Your task to perform on an android device: turn on priority inbox in the gmail app Image 0: 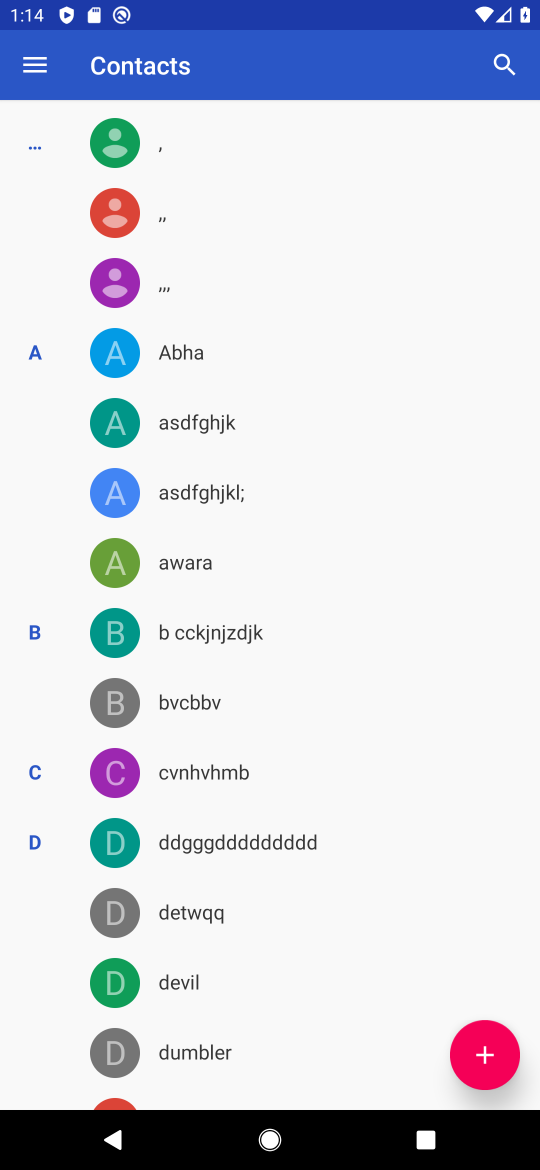
Step 0: press home button
Your task to perform on an android device: turn on priority inbox in the gmail app Image 1: 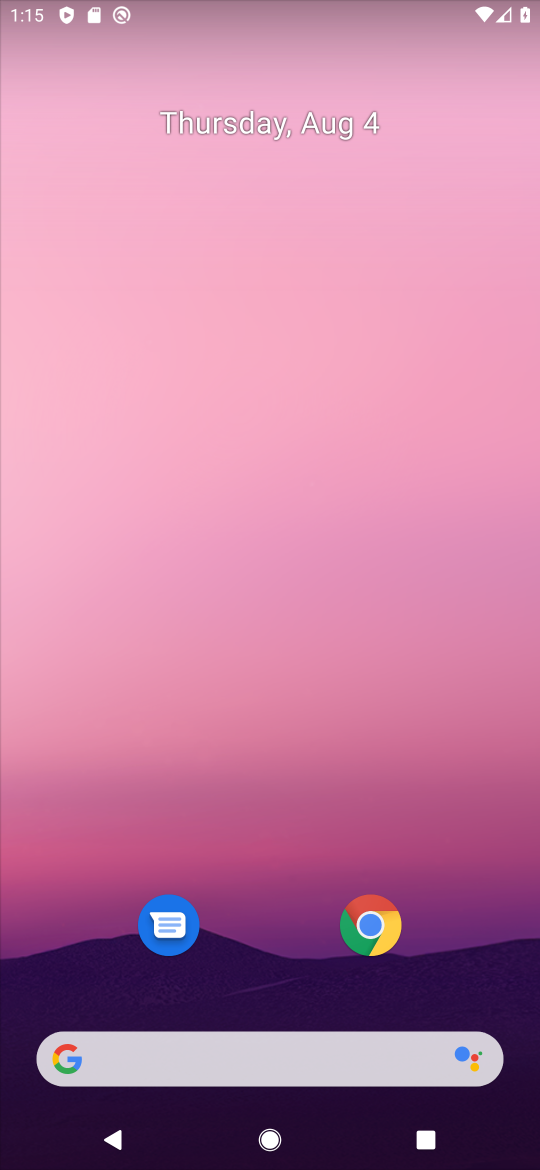
Step 1: drag from (268, 908) to (337, 18)
Your task to perform on an android device: turn on priority inbox in the gmail app Image 2: 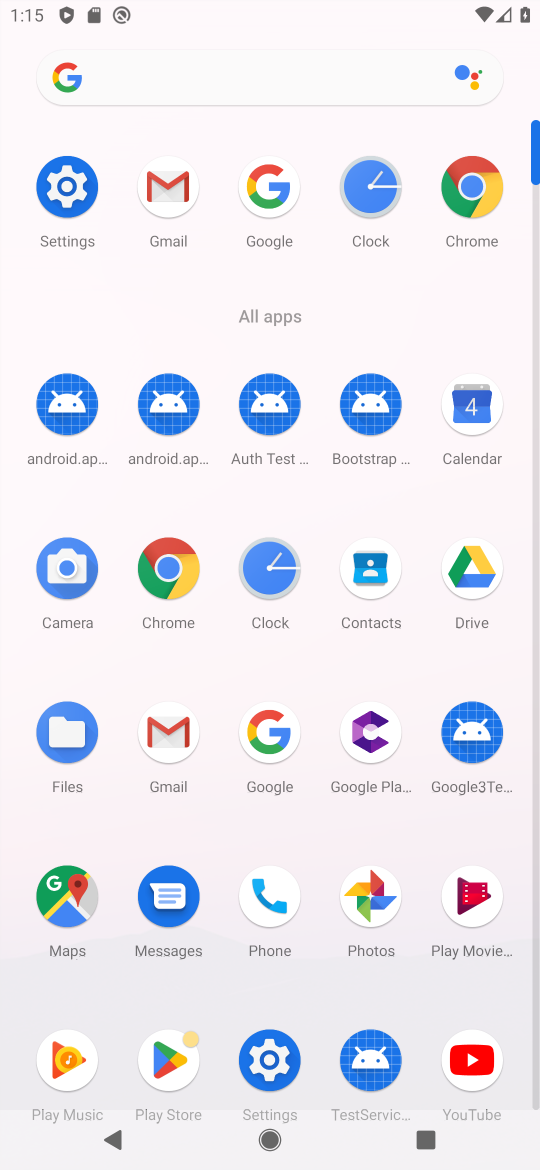
Step 2: click (337, 18)
Your task to perform on an android device: turn on priority inbox in the gmail app Image 3: 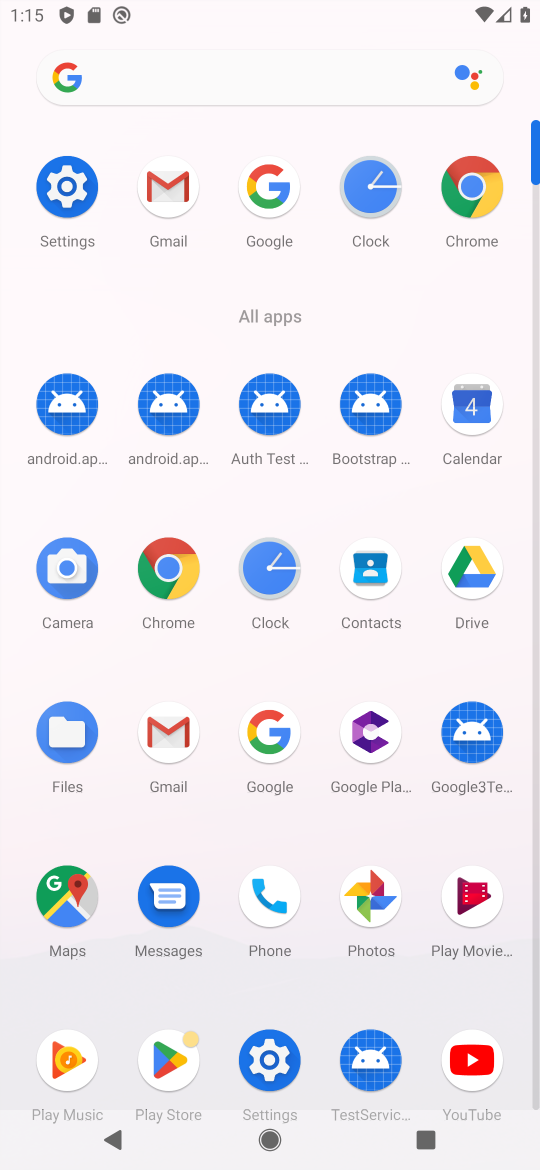
Step 3: click (153, 204)
Your task to perform on an android device: turn on priority inbox in the gmail app Image 4: 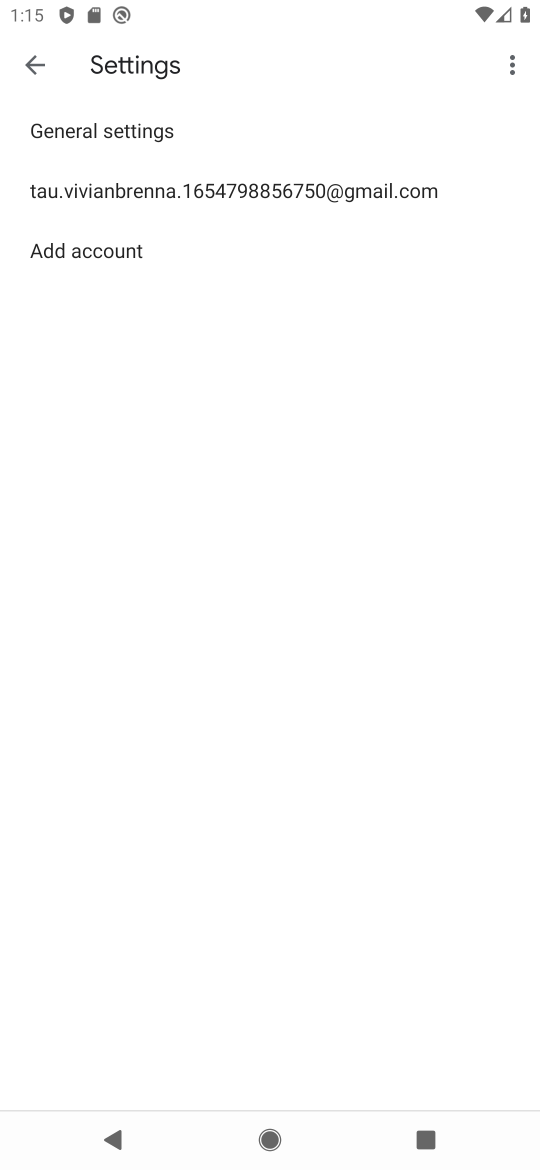
Step 4: click (28, 61)
Your task to perform on an android device: turn on priority inbox in the gmail app Image 5: 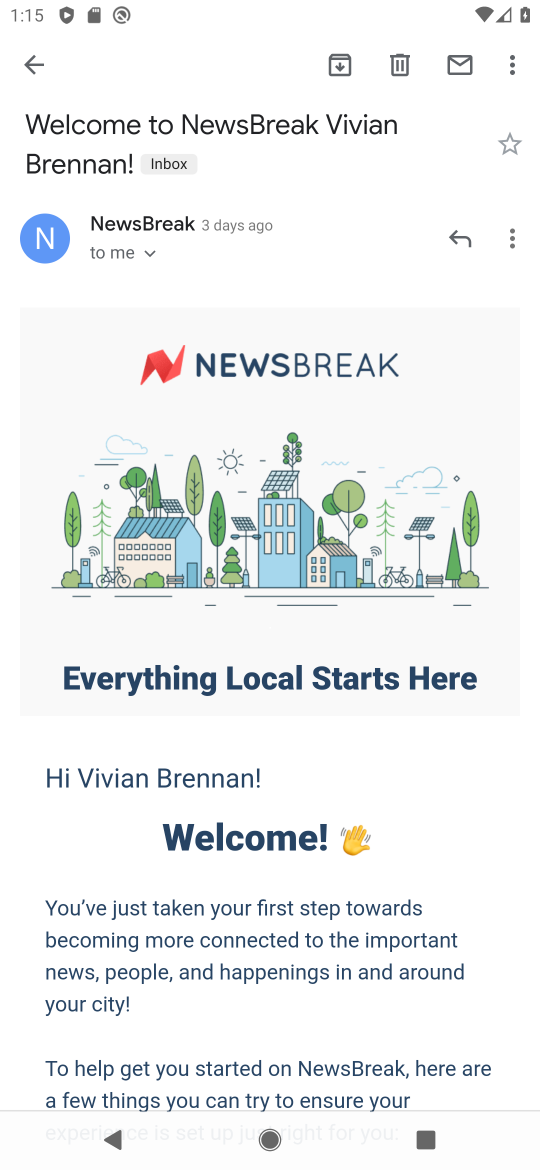
Step 5: click (28, 61)
Your task to perform on an android device: turn on priority inbox in the gmail app Image 6: 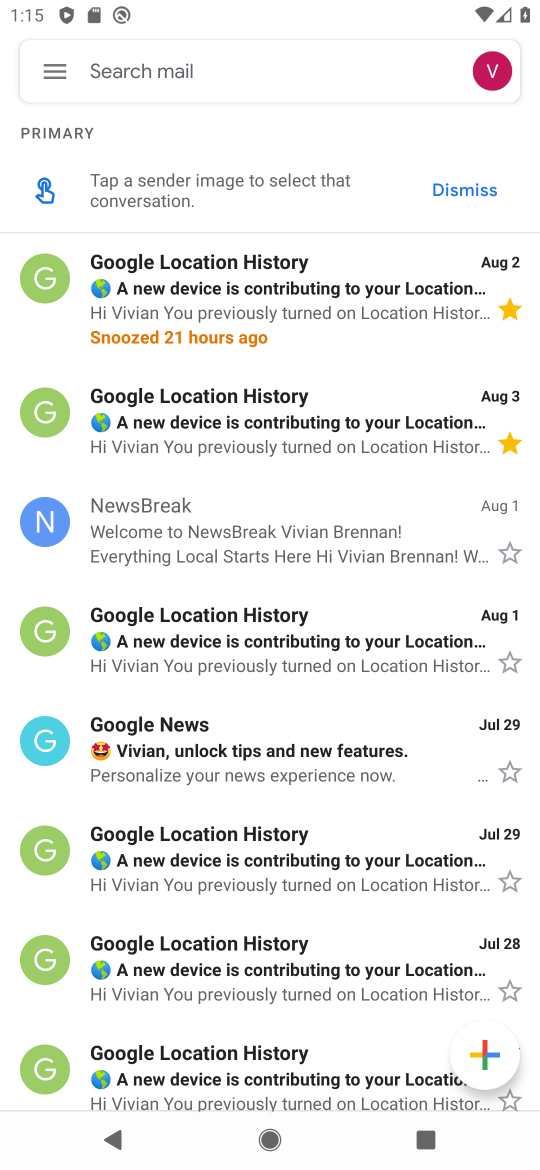
Step 6: click (443, 189)
Your task to perform on an android device: turn on priority inbox in the gmail app Image 7: 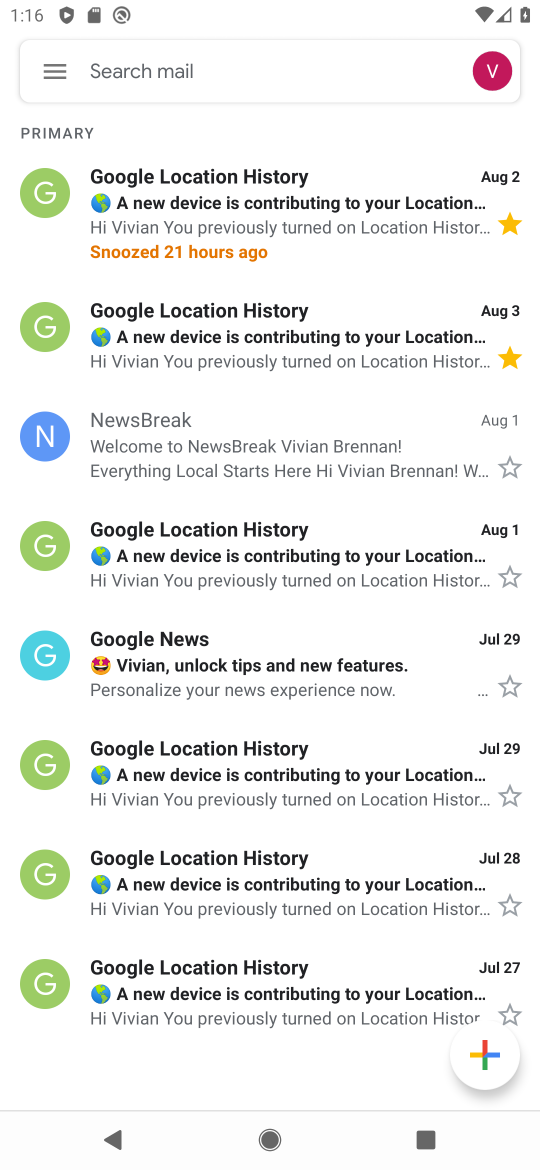
Step 7: task complete